Your task to perform on an android device: toggle javascript in the chrome app Image 0: 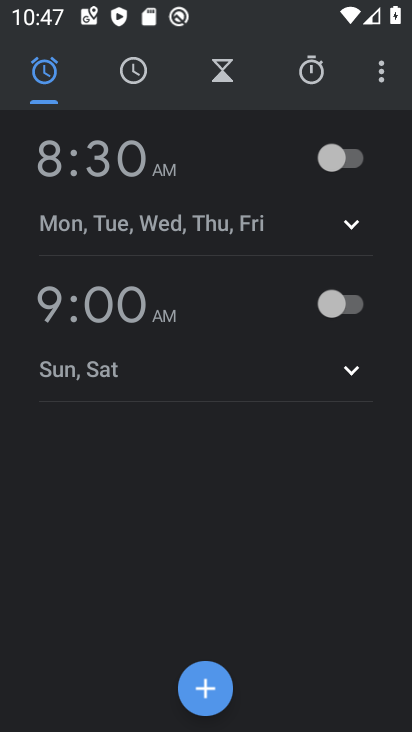
Step 0: press back button
Your task to perform on an android device: toggle javascript in the chrome app Image 1: 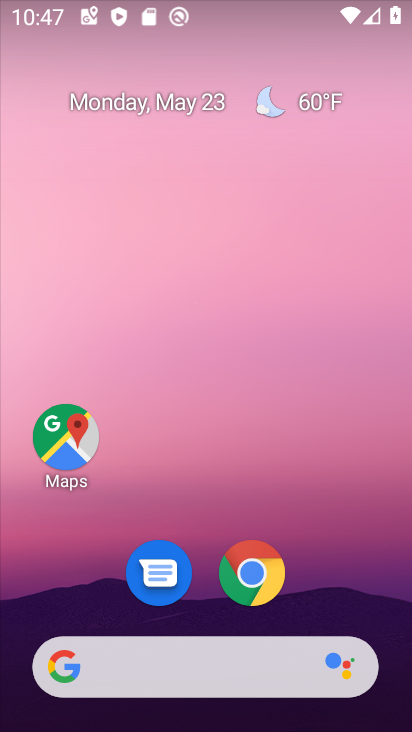
Step 1: drag from (338, 576) to (276, 0)
Your task to perform on an android device: toggle javascript in the chrome app Image 2: 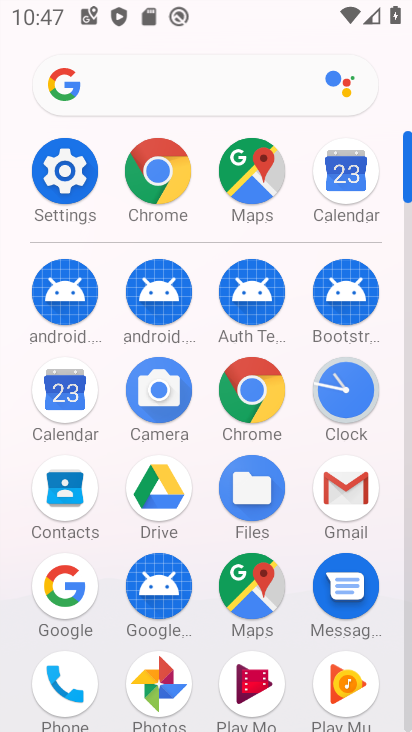
Step 2: click (246, 390)
Your task to perform on an android device: toggle javascript in the chrome app Image 3: 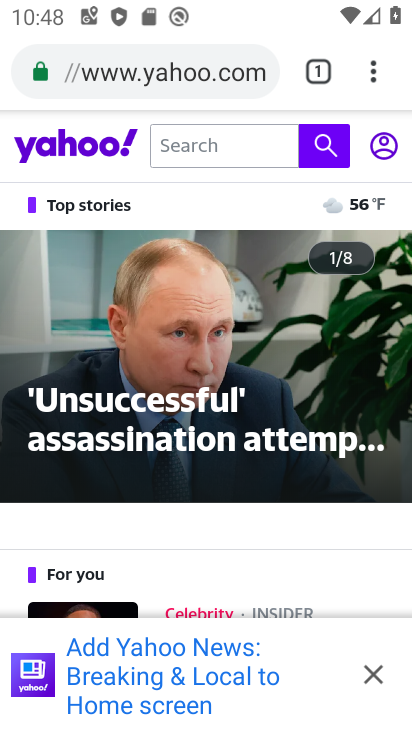
Step 3: drag from (370, 74) to (137, 554)
Your task to perform on an android device: toggle javascript in the chrome app Image 4: 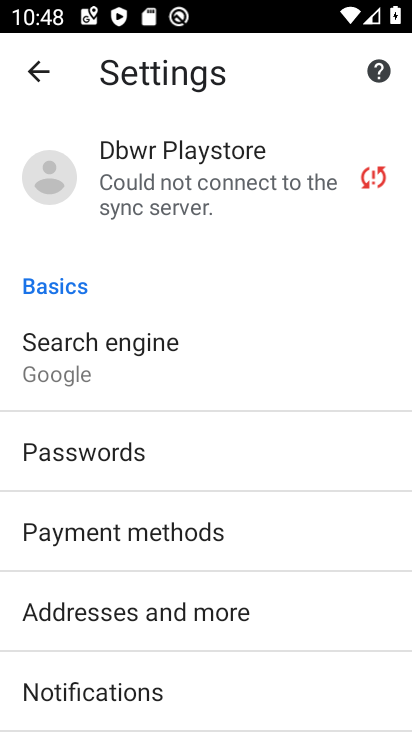
Step 4: drag from (275, 377) to (274, 212)
Your task to perform on an android device: toggle javascript in the chrome app Image 5: 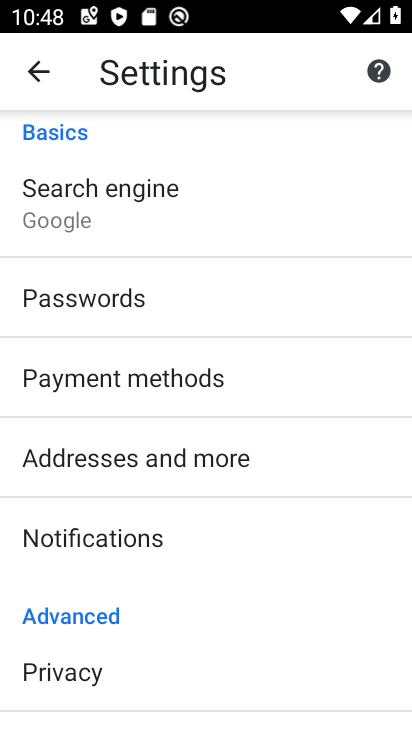
Step 5: drag from (197, 623) to (280, 157)
Your task to perform on an android device: toggle javascript in the chrome app Image 6: 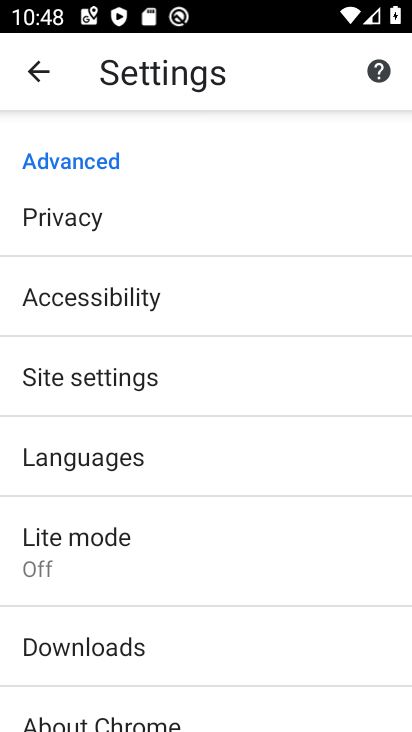
Step 6: click (145, 349)
Your task to perform on an android device: toggle javascript in the chrome app Image 7: 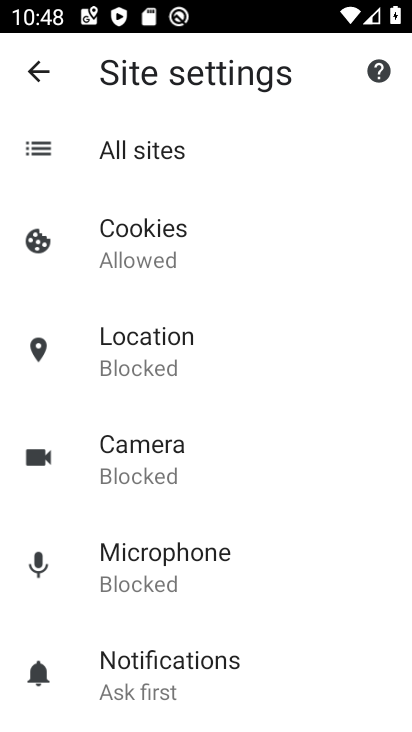
Step 7: drag from (230, 616) to (265, 159)
Your task to perform on an android device: toggle javascript in the chrome app Image 8: 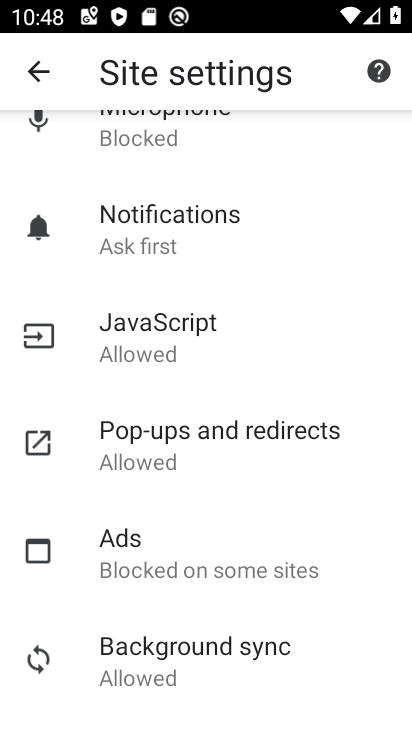
Step 8: click (220, 346)
Your task to perform on an android device: toggle javascript in the chrome app Image 9: 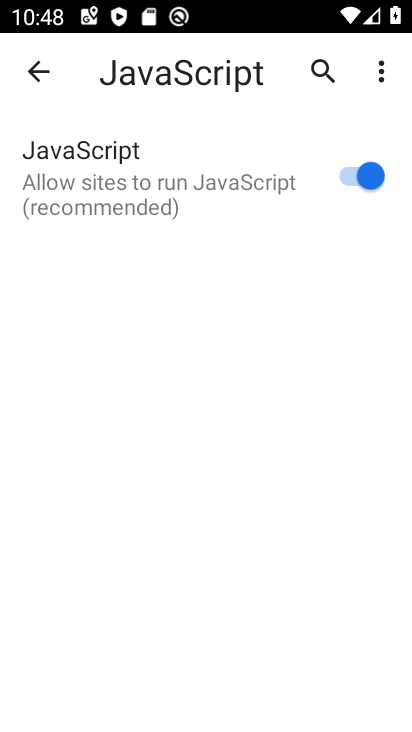
Step 9: click (360, 186)
Your task to perform on an android device: toggle javascript in the chrome app Image 10: 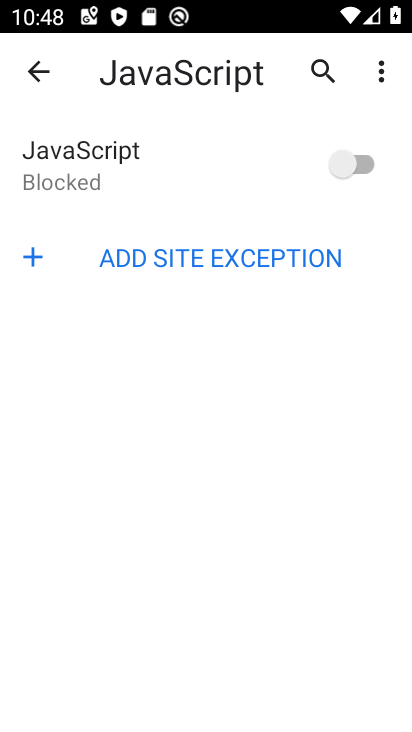
Step 10: task complete